Your task to perform on an android device: What is the news today? Image 0: 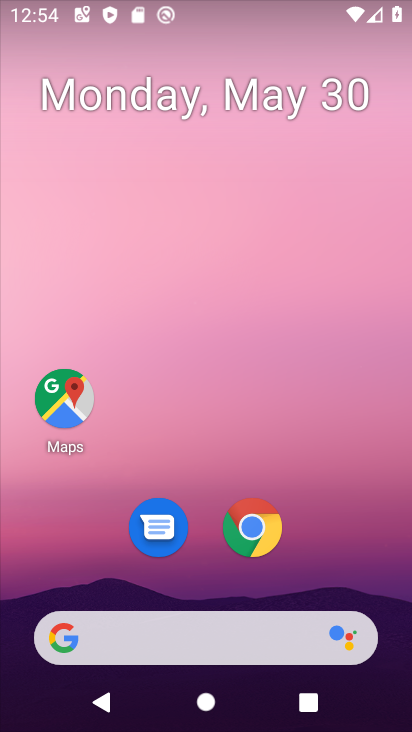
Step 0: drag from (204, 575) to (223, 159)
Your task to perform on an android device: What is the news today? Image 1: 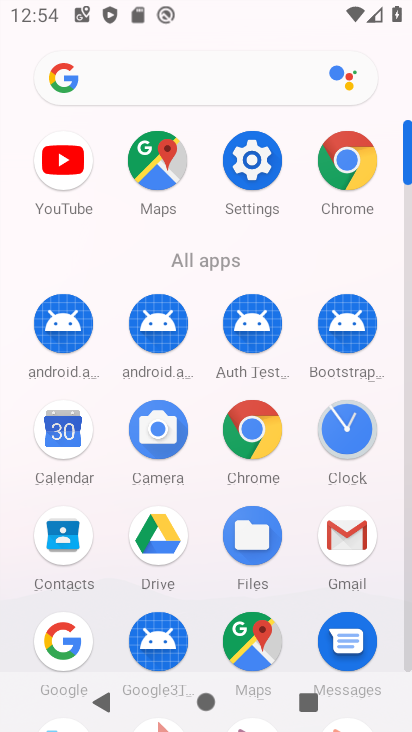
Step 1: click (219, 44)
Your task to perform on an android device: What is the news today? Image 2: 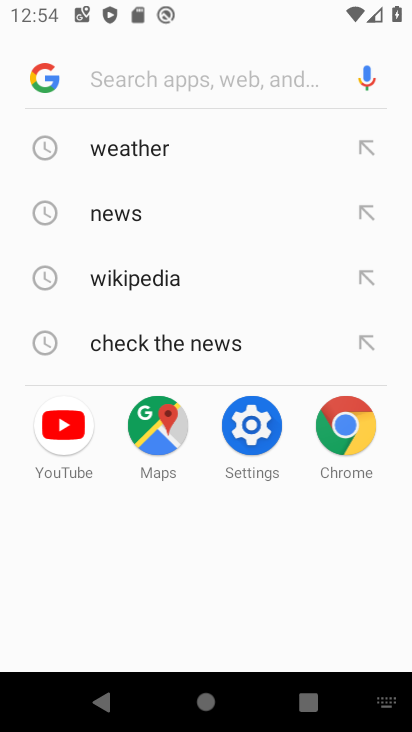
Step 2: click (118, 220)
Your task to perform on an android device: What is the news today? Image 3: 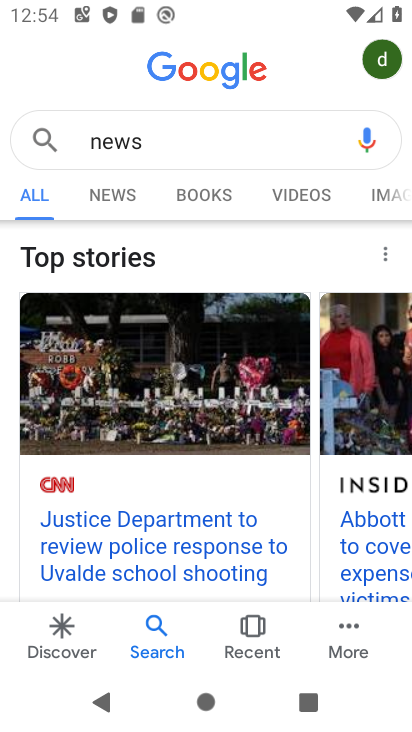
Step 3: task complete